Your task to perform on an android device: create a new album in the google photos Image 0: 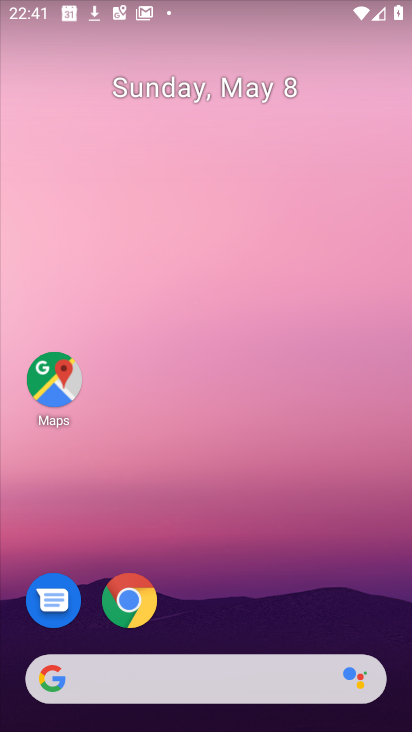
Step 0: drag from (256, 698) to (298, 251)
Your task to perform on an android device: create a new album in the google photos Image 1: 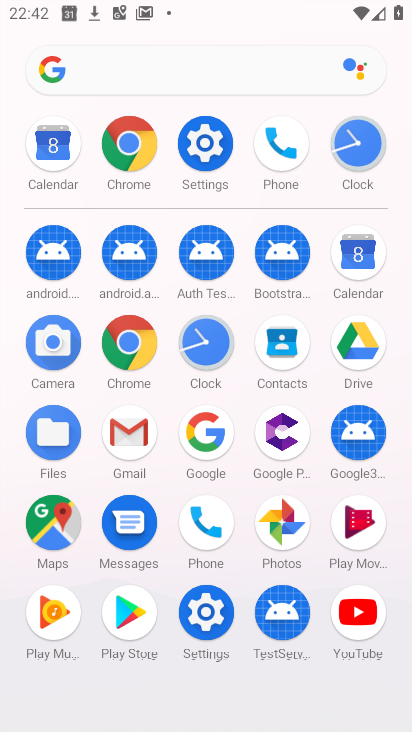
Step 1: click (284, 542)
Your task to perform on an android device: create a new album in the google photos Image 2: 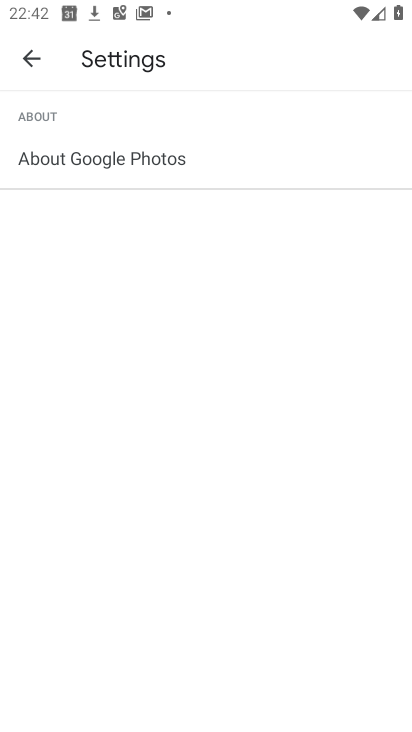
Step 2: click (23, 55)
Your task to perform on an android device: create a new album in the google photos Image 3: 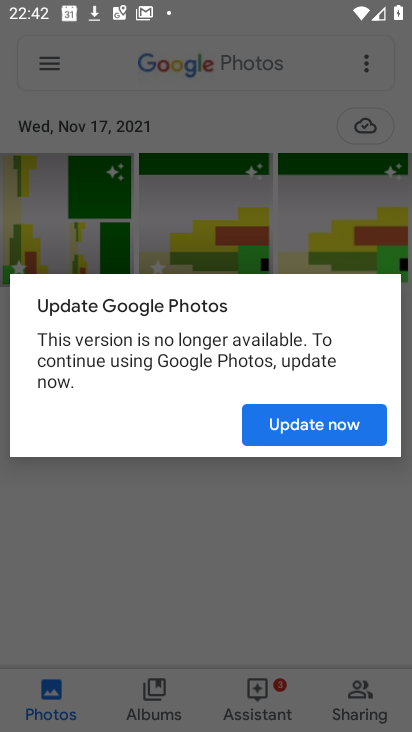
Step 3: click (313, 425)
Your task to perform on an android device: create a new album in the google photos Image 4: 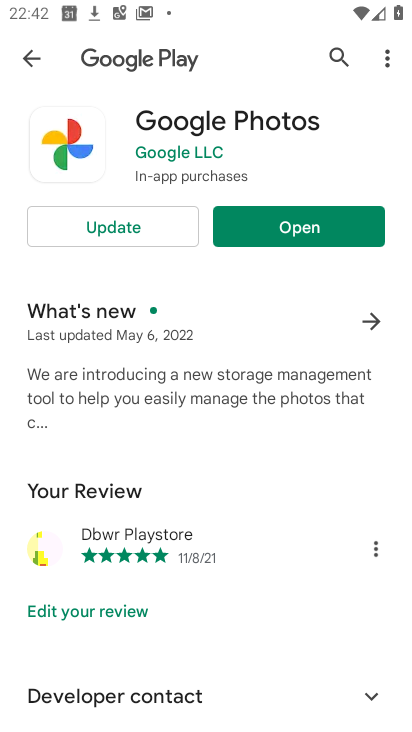
Step 4: click (330, 215)
Your task to perform on an android device: create a new album in the google photos Image 5: 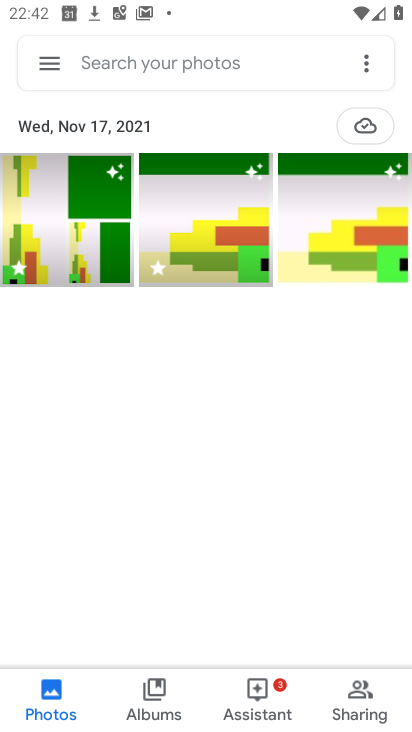
Step 5: click (348, 231)
Your task to perform on an android device: create a new album in the google photos Image 6: 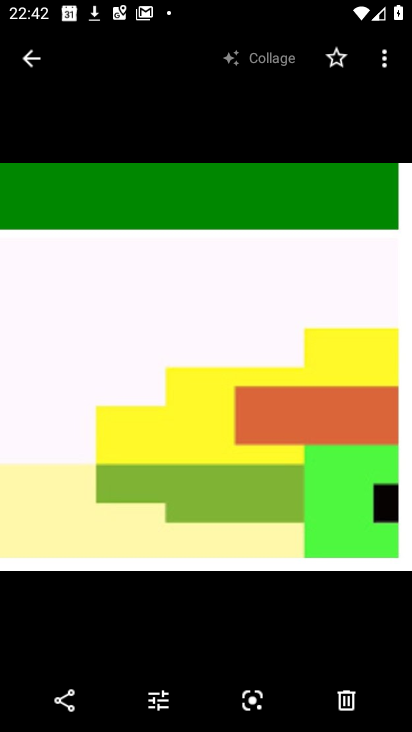
Step 6: click (384, 70)
Your task to perform on an android device: create a new album in the google photos Image 7: 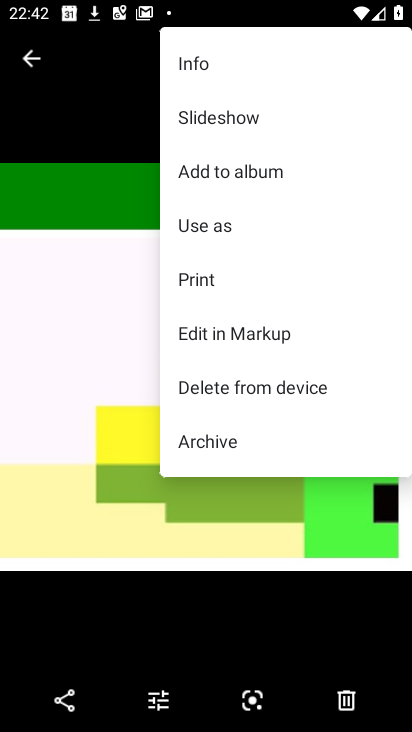
Step 7: click (240, 175)
Your task to perform on an android device: create a new album in the google photos Image 8: 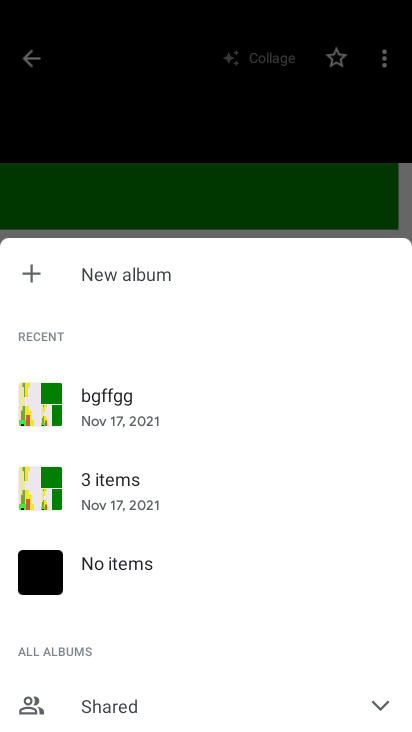
Step 8: click (114, 273)
Your task to perform on an android device: create a new album in the google photos Image 9: 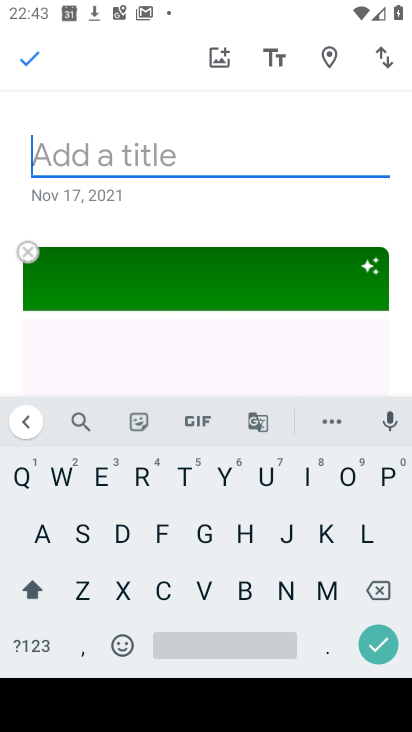
Step 9: click (184, 465)
Your task to perform on an android device: create a new album in the google photos Image 10: 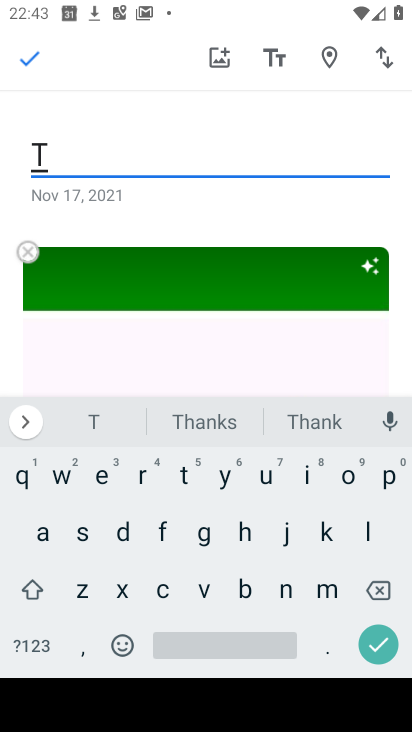
Step 10: click (128, 481)
Your task to perform on an android device: create a new album in the google photos Image 11: 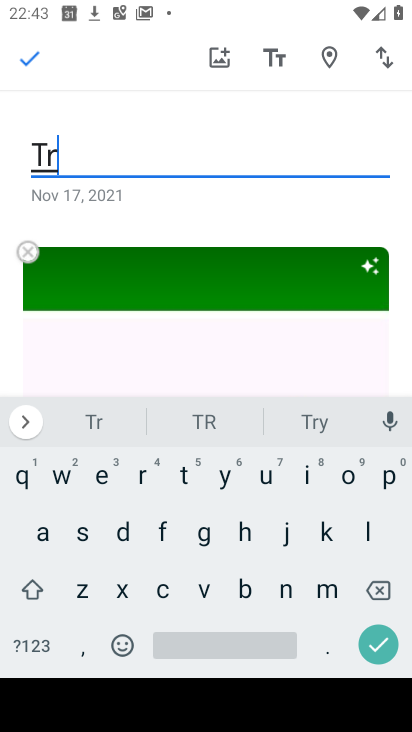
Step 11: click (192, 532)
Your task to perform on an android device: create a new album in the google photos Image 12: 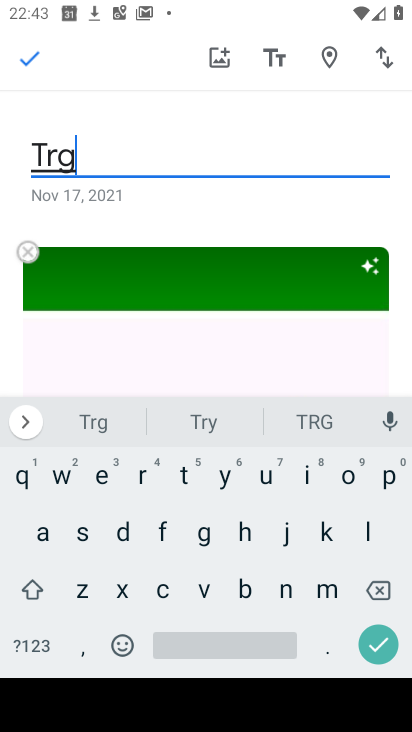
Step 12: click (27, 52)
Your task to perform on an android device: create a new album in the google photos Image 13: 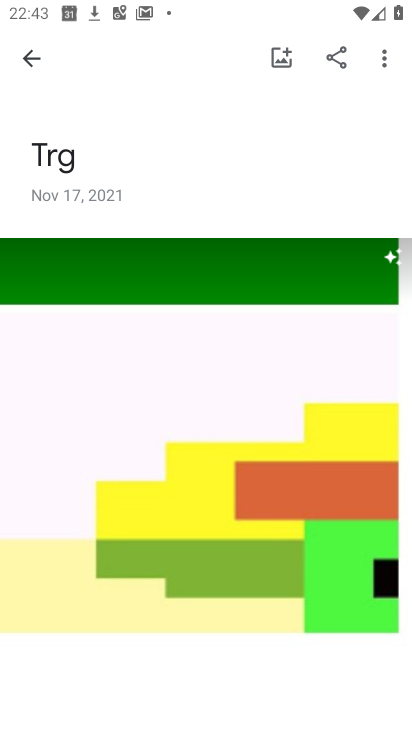
Step 13: task complete